Your task to perform on an android device: Open Yahoo.com Image 0: 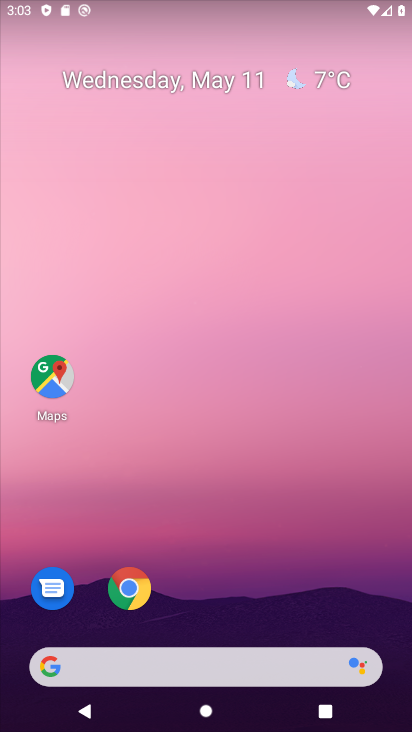
Step 0: click (131, 592)
Your task to perform on an android device: Open Yahoo.com Image 1: 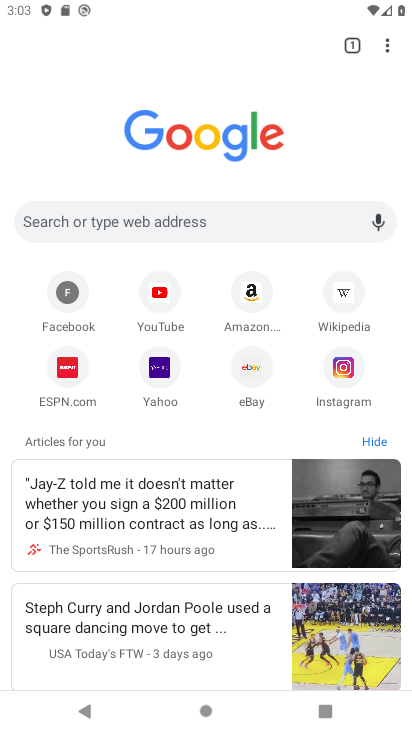
Step 1: click (154, 378)
Your task to perform on an android device: Open Yahoo.com Image 2: 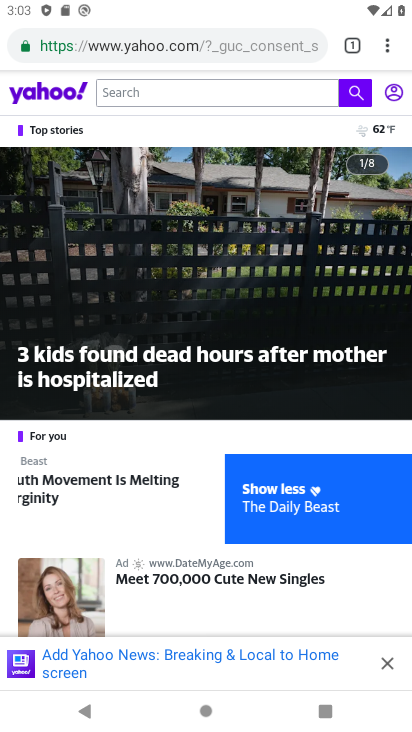
Step 2: task complete